Your task to perform on an android device: toggle sleep mode Image 0: 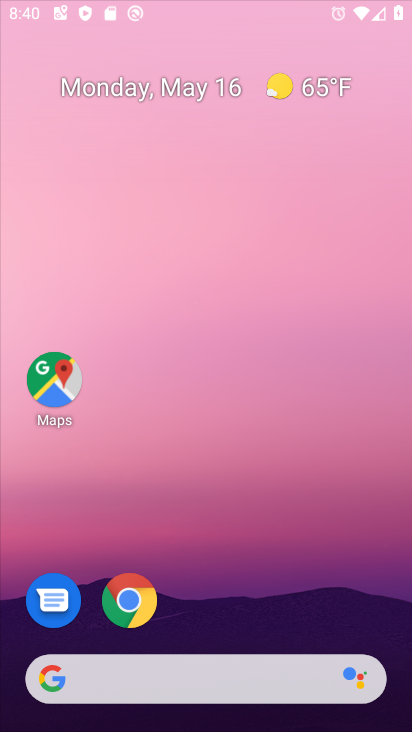
Step 0: click (310, 70)
Your task to perform on an android device: toggle sleep mode Image 1: 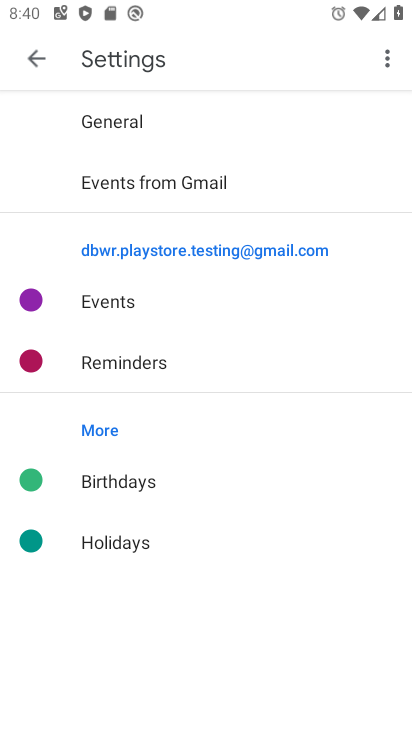
Step 1: press home button
Your task to perform on an android device: toggle sleep mode Image 2: 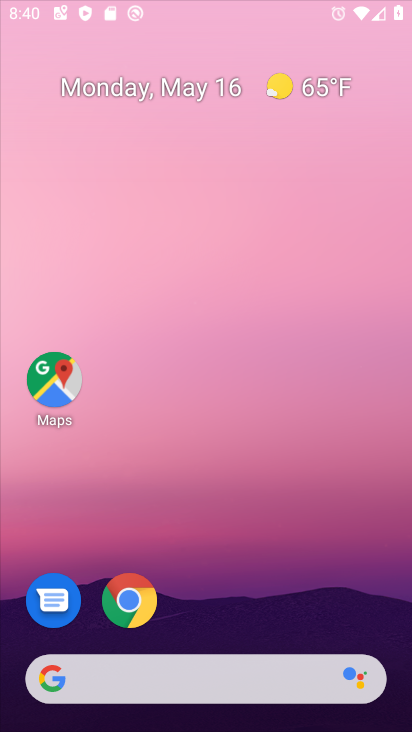
Step 2: drag from (223, 645) to (410, 131)
Your task to perform on an android device: toggle sleep mode Image 3: 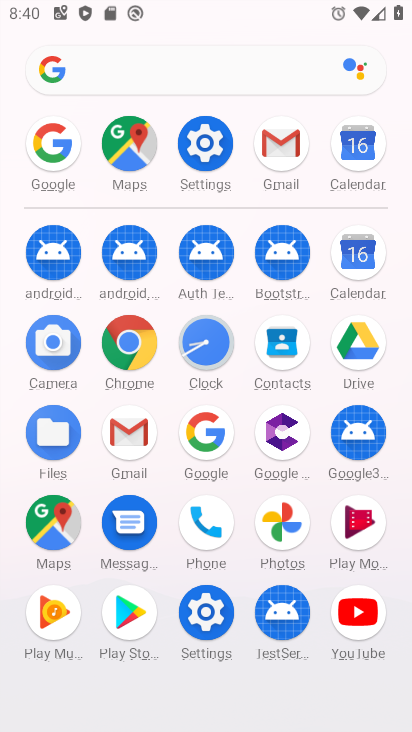
Step 3: click (204, 143)
Your task to perform on an android device: toggle sleep mode Image 4: 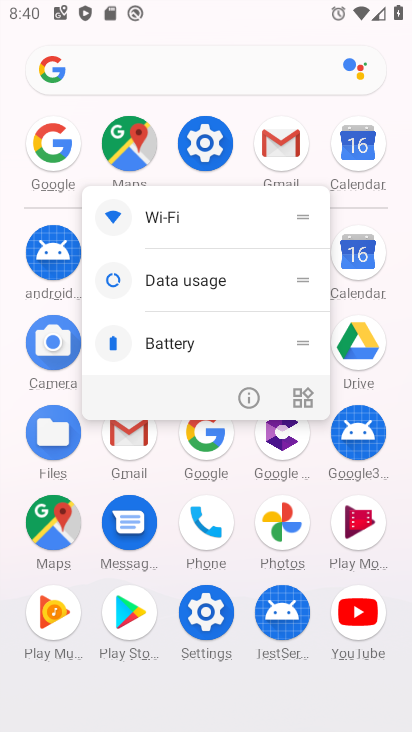
Step 4: click (237, 382)
Your task to perform on an android device: toggle sleep mode Image 5: 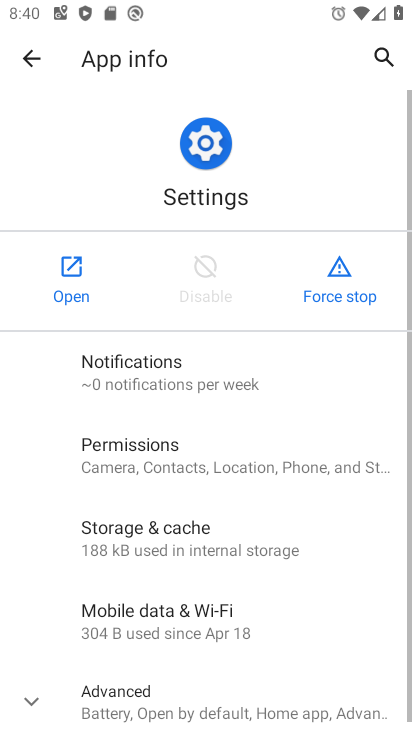
Step 5: click (66, 259)
Your task to perform on an android device: toggle sleep mode Image 6: 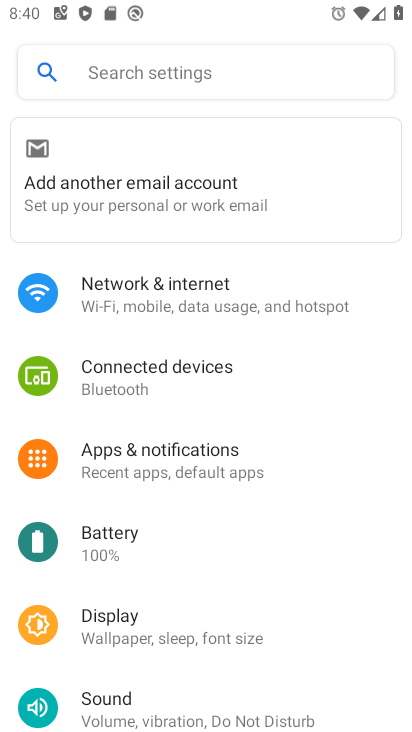
Step 6: drag from (213, 631) to (272, 173)
Your task to perform on an android device: toggle sleep mode Image 7: 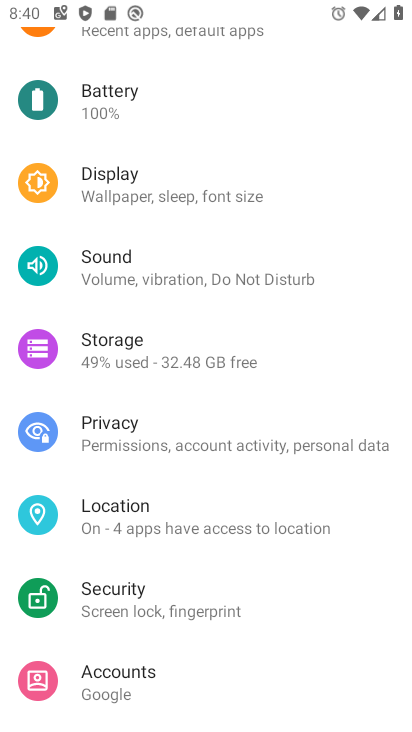
Step 7: click (131, 185)
Your task to perform on an android device: toggle sleep mode Image 8: 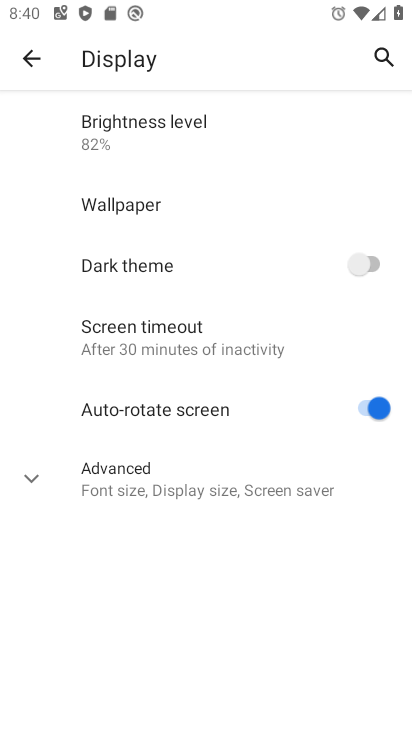
Step 8: click (195, 470)
Your task to perform on an android device: toggle sleep mode Image 9: 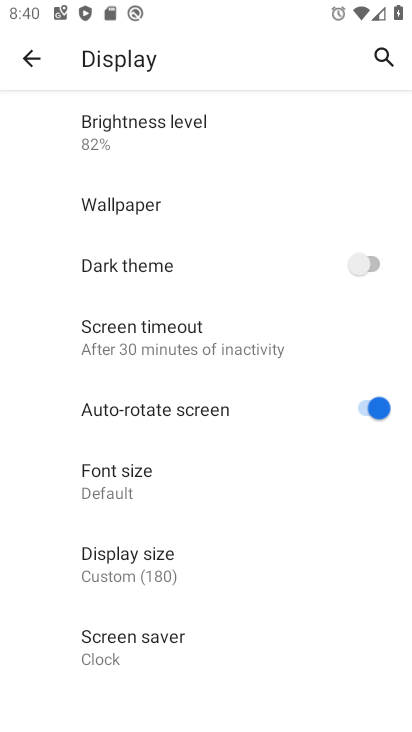
Step 9: click (220, 328)
Your task to perform on an android device: toggle sleep mode Image 10: 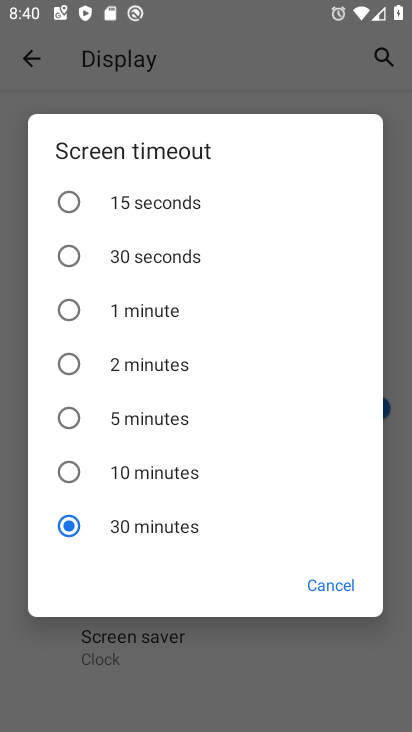
Step 10: task complete